Your task to perform on an android device: Go to Android settings Image 0: 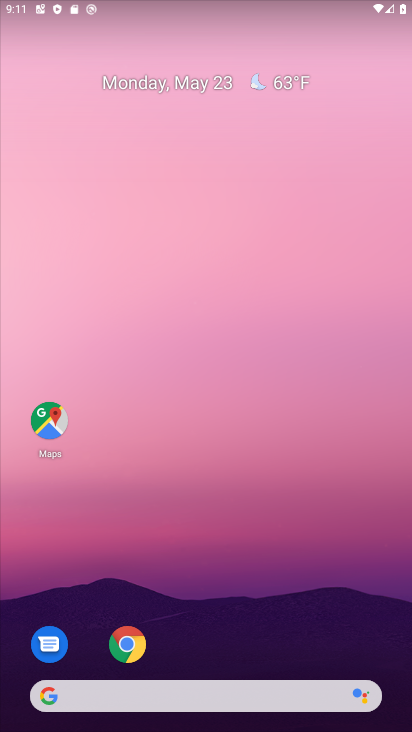
Step 0: press home button
Your task to perform on an android device: Go to Android settings Image 1: 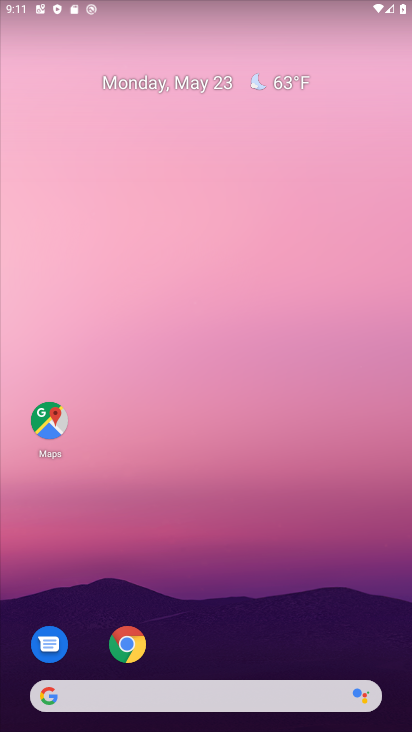
Step 1: drag from (213, 665) to (227, 112)
Your task to perform on an android device: Go to Android settings Image 2: 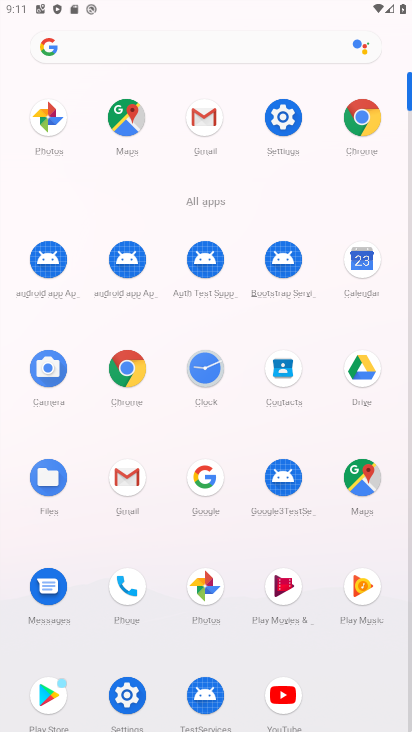
Step 2: click (279, 114)
Your task to perform on an android device: Go to Android settings Image 3: 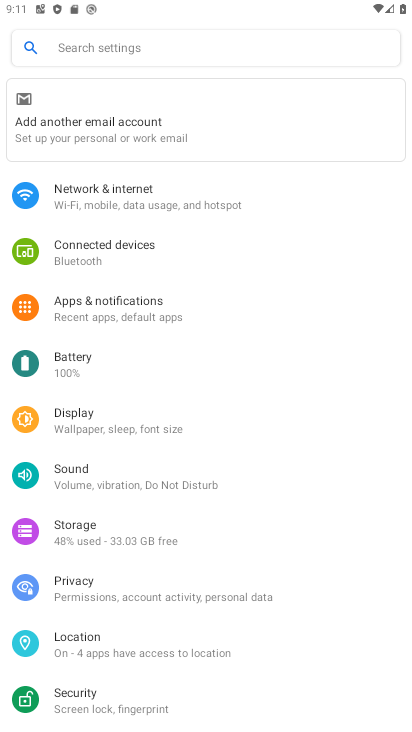
Step 3: drag from (194, 677) to (224, 178)
Your task to perform on an android device: Go to Android settings Image 4: 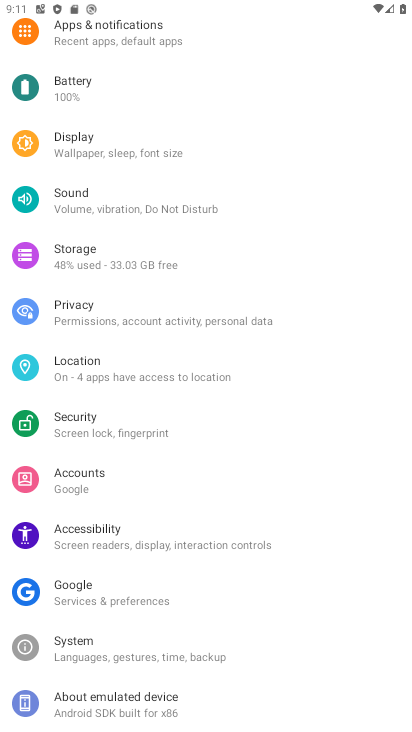
Step 4: click (188, 706)
Your task to perform on an android device: Go to Android settings Image 5: 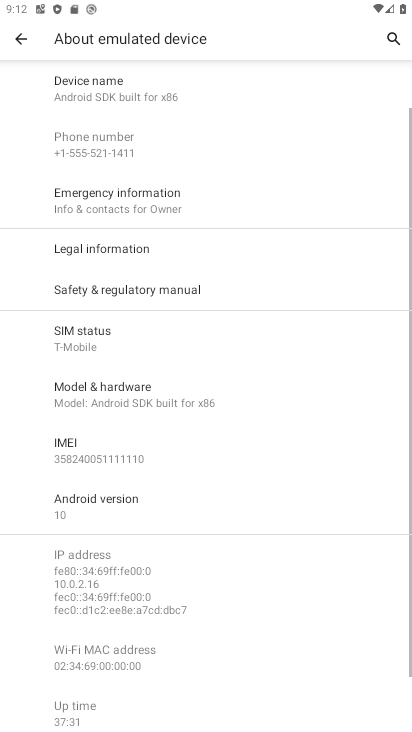
Step 5: task complete